Your task to perform on an android device: Go to accessibility settings Image 0: 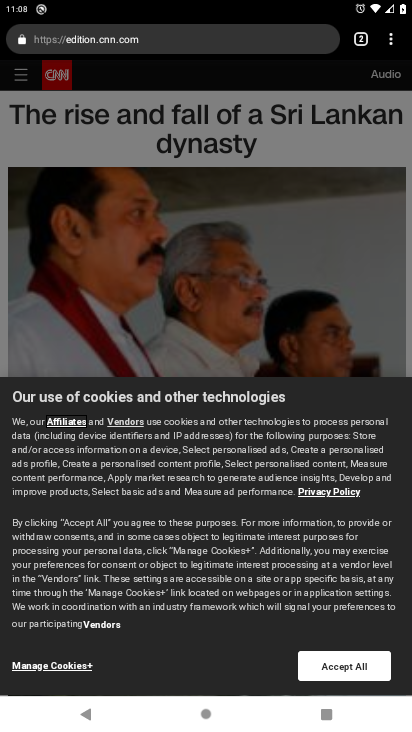
Step 0: press home button
Your task to perform on an android device: Go to accessibility settings Image 1: 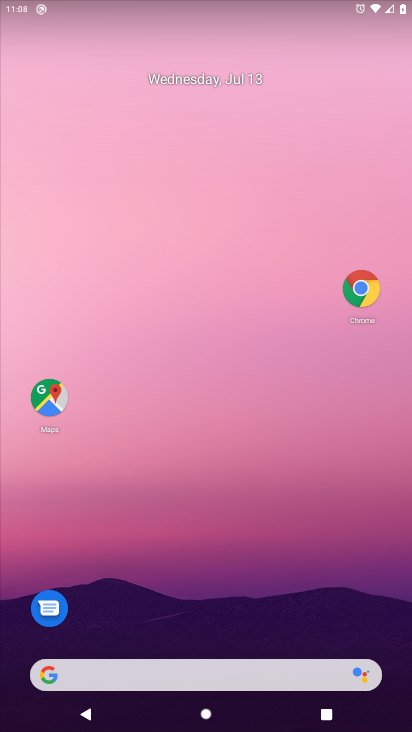
Step 1: drag from (147, 510) to (324, 101)
Your task to perform on an android device: Go to accessibility settings Image 2: 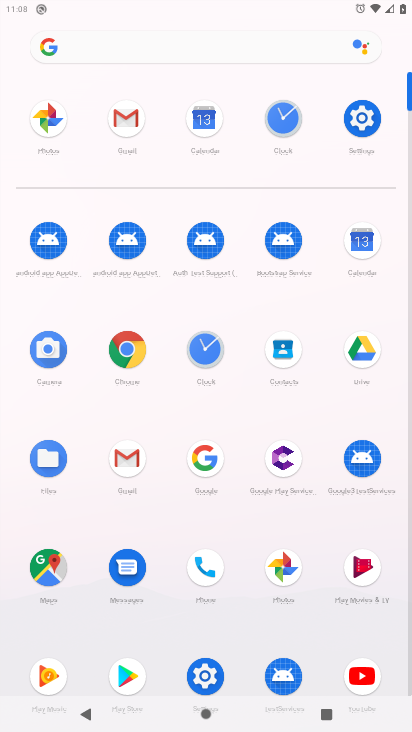
Step 2: click (213, 660)
Your task to perform on an android device: Go to accessibility settings Image 3: 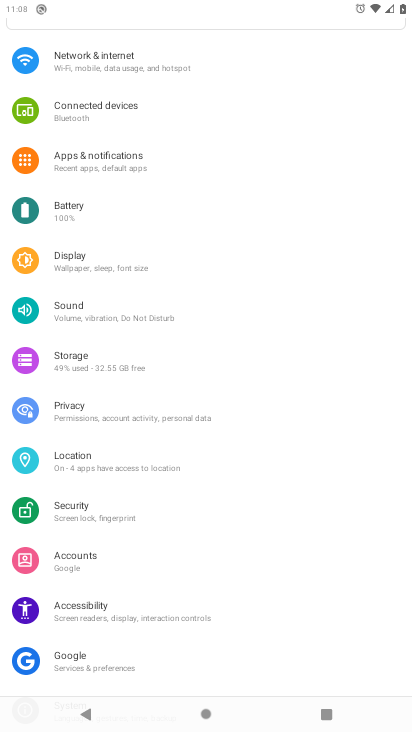
Step 3: click (118, 608)
Your task to perform on an android device: Go to accessibility settings Image 4: 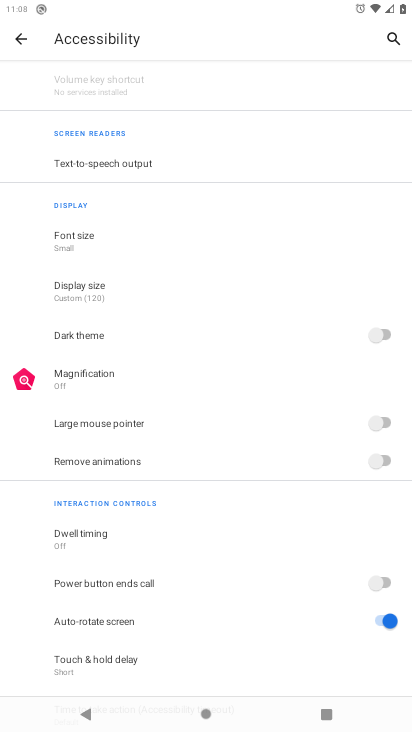
Step 4: task complete